Your task to perform on an android device: Search for seafood restaurants on Google Maps Image 0: 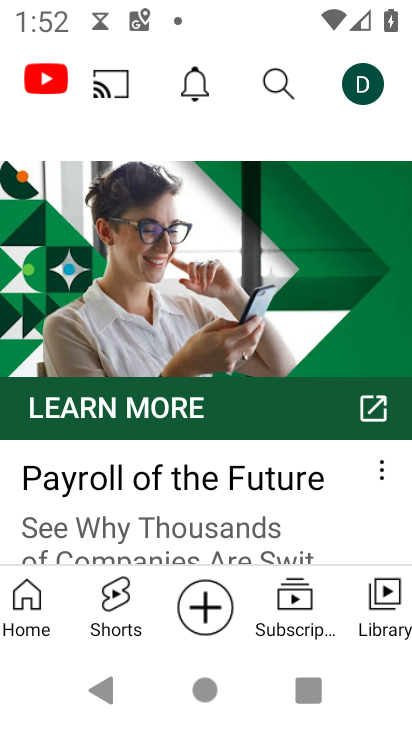
Step 0: press home button
Your task to perform on an android device: Search for seafood restaurants on Google Maps Image 1: 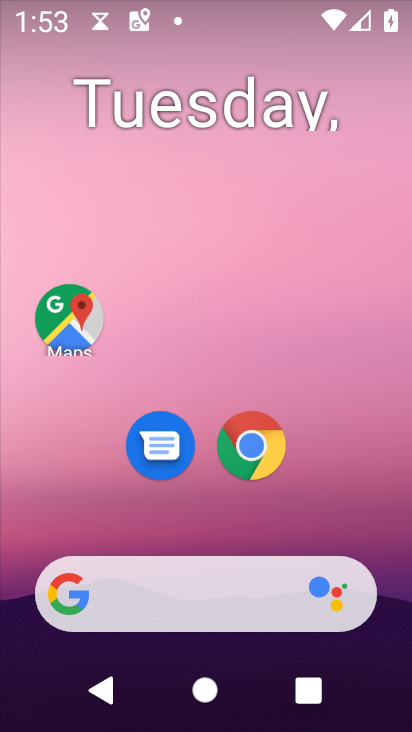
Step 1: drag from (332, 694) to (308, 246)
Your task to perform on an android device: Search for seafood restaurants on Google Maps Image 2: 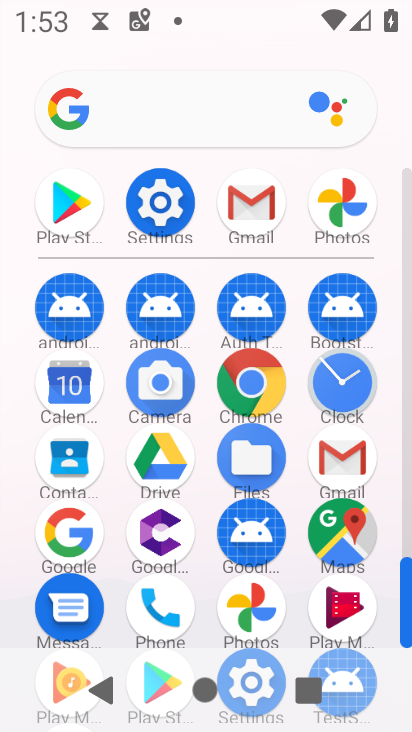
Step 2: click (344, 536)
Your task to perform on an android device: Search for seafood restaurants on Google Maps Image 3: 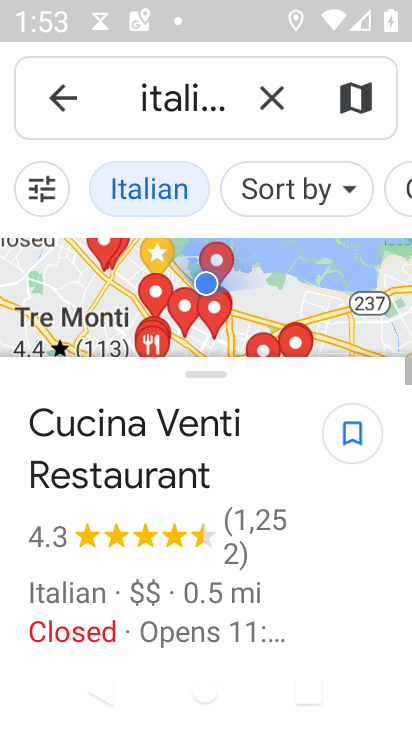
Step 3: click (263, 87)
Your task to perform on an android device: Search for seafood restaurants on Google Maps Image 4: 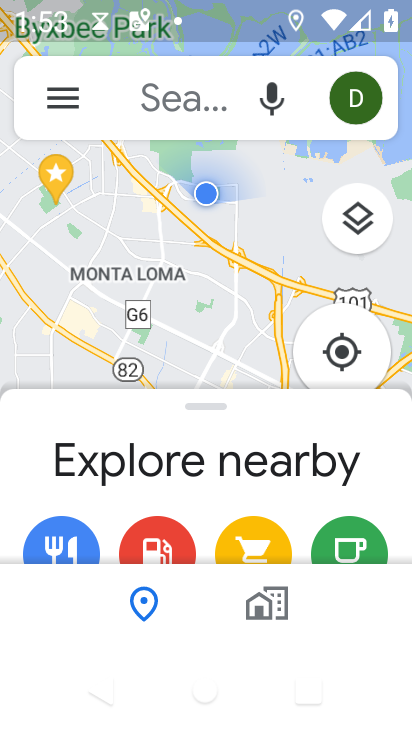
Step 4: click (122, 96)
Your task to perform on an android device: Search for seafood restaurants on Google Maps Image 5: 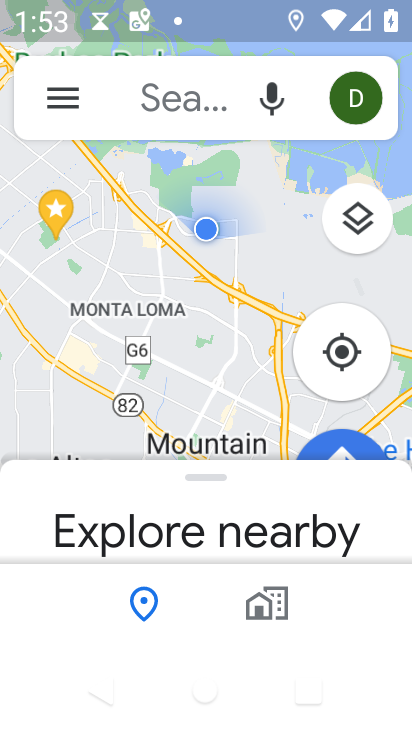
Step 5: click (167, 124)
Your task to perform on an android device: Search for seafood restaurants on Google Maps Image 6: 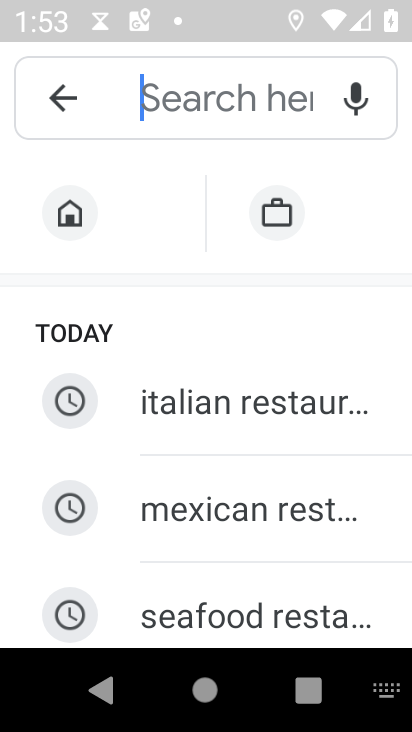
Step 6: click (297, 589)
Your task to perform on an android device: Search for seafood restaurants on Google Maps Image 7: 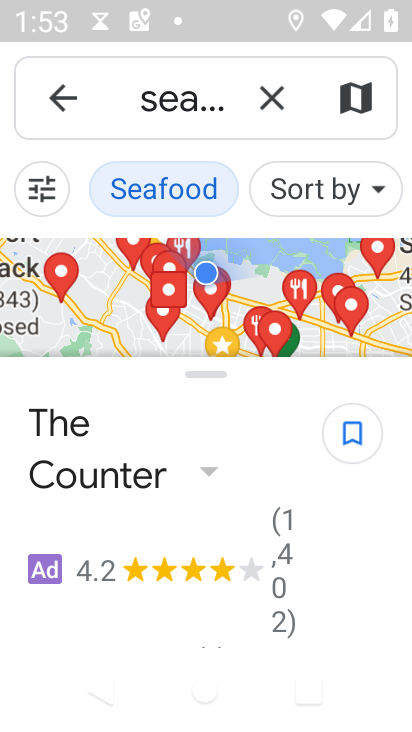
Step 7: task complete